Your task to perform on an android device: Turn on the flashlight Image 0: 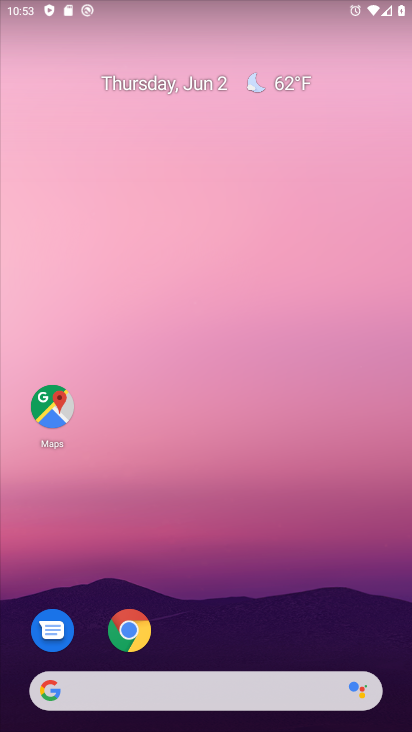
Step 0: press home button
Your task to perform on an android device: Turn on the flashlight Image 1: 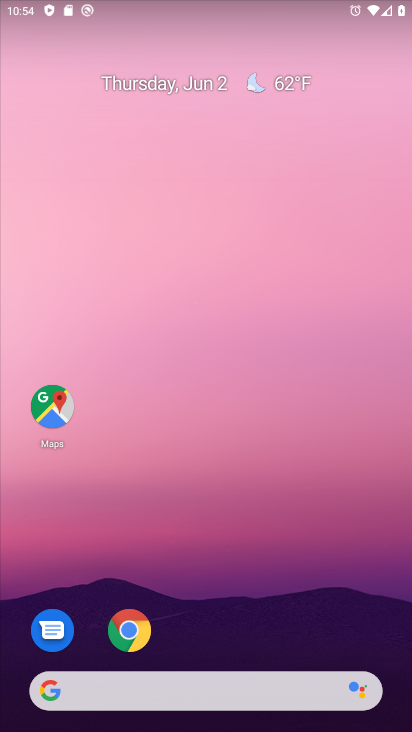
Step 1: task complete